Your task to perform on an android device: uninstall "Google Duo" Image 0: 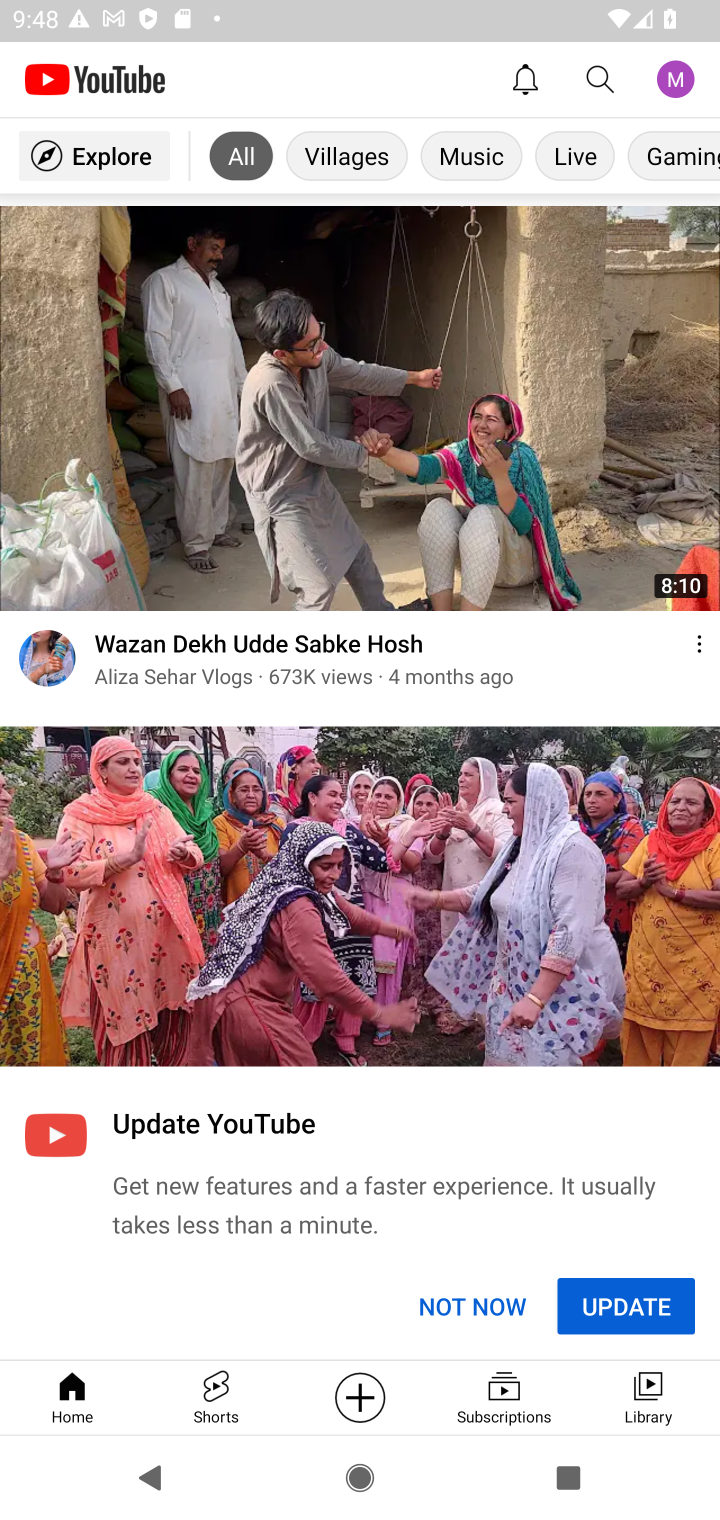
Step 0: press home button
Your task to perform on an android device: uninstall "Google Duo" Image 1: 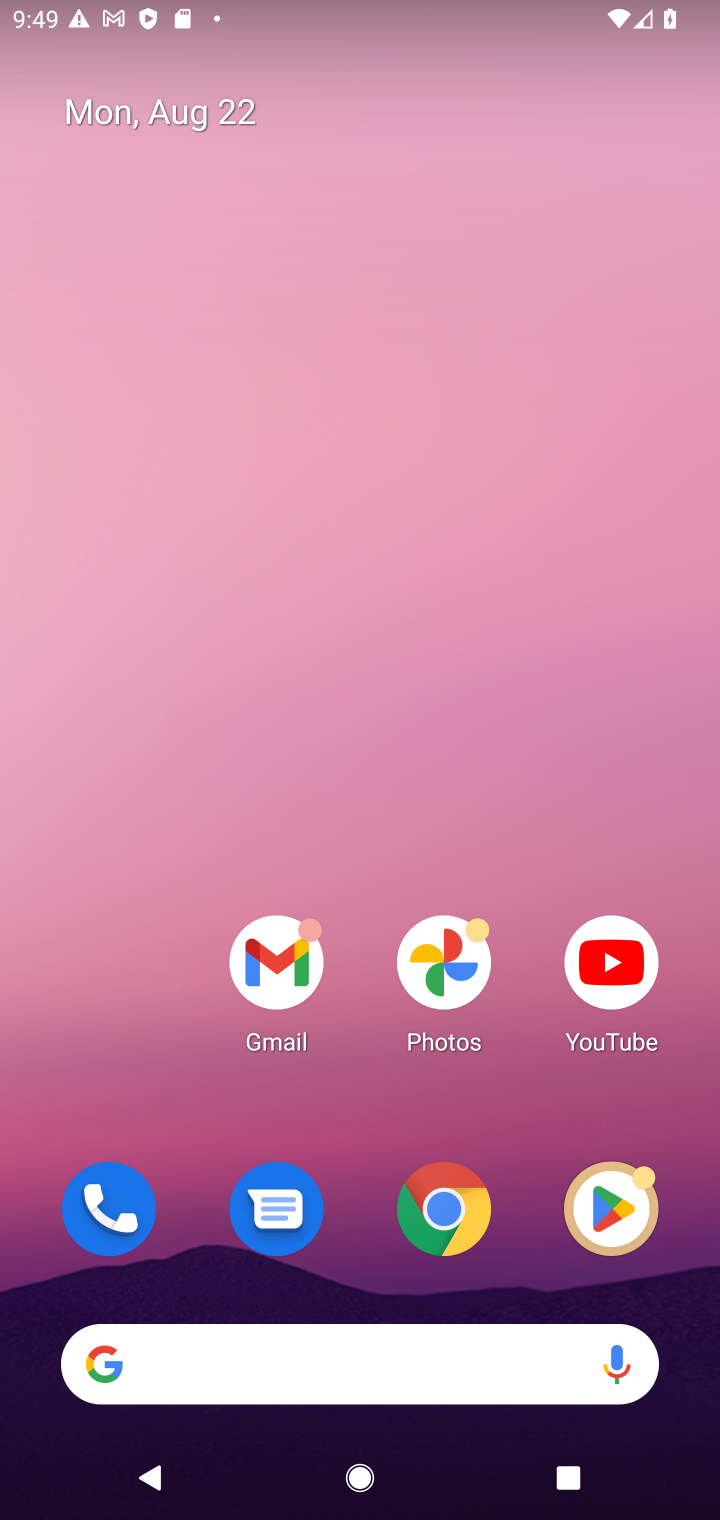
Step 1: click (384, 99)
Your task to perform on an android device: uninstall "Google Duo" Image 2: 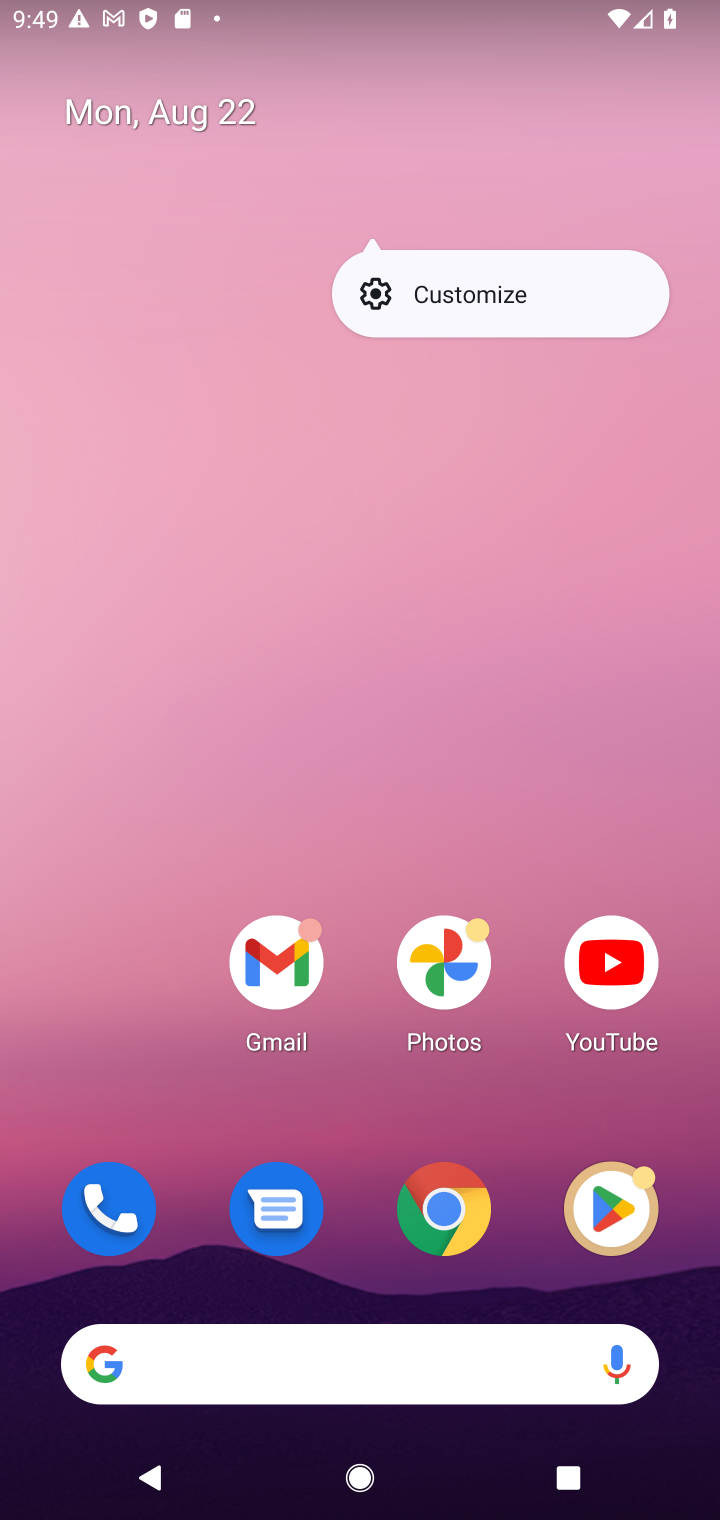
Step 2: drag from (359, 1334) to (539, 322)
Your task to perform on an android device: uninstall "Google Duo" Image 3: 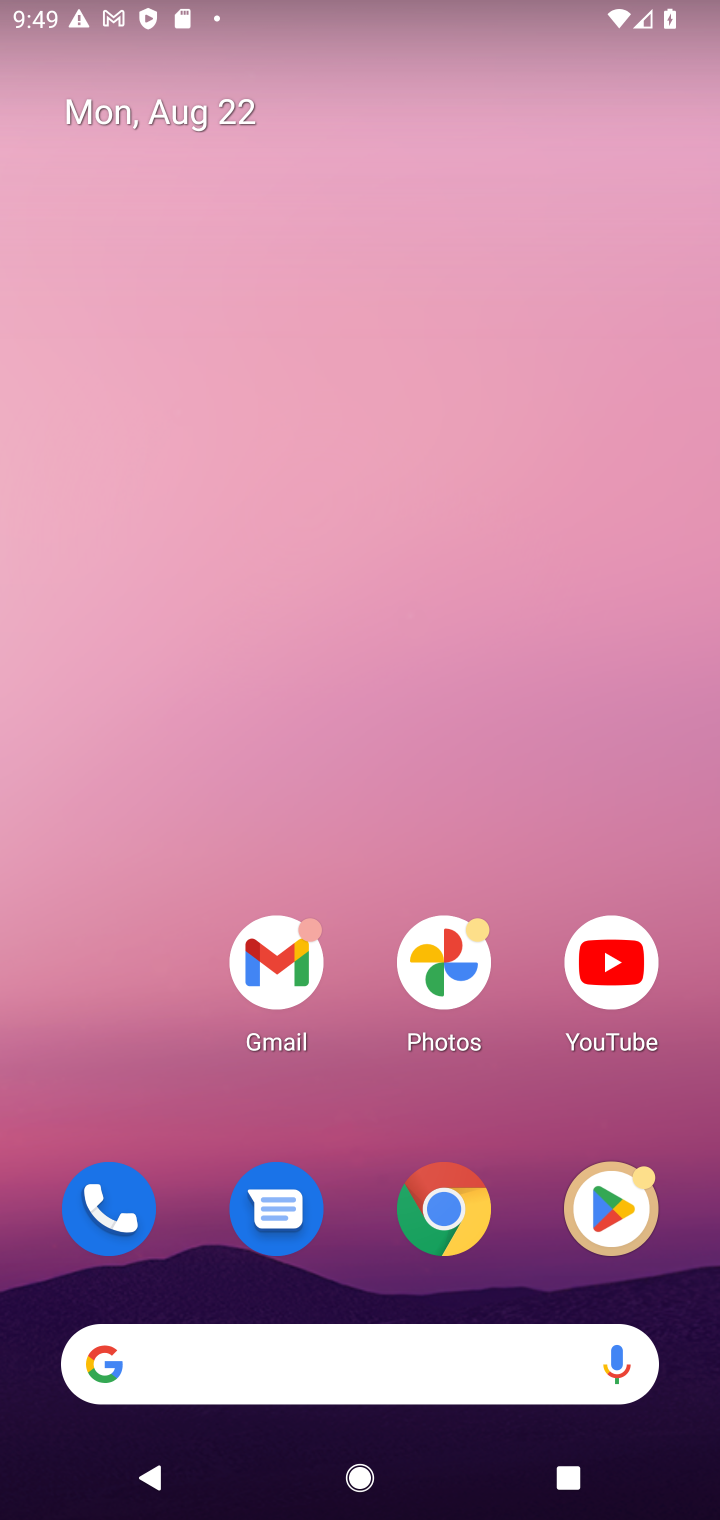
Step 3: drag from (288, 1325) to (286, 360)
Your task to perform on an android device: uninstall "Google Duo" Image 4: 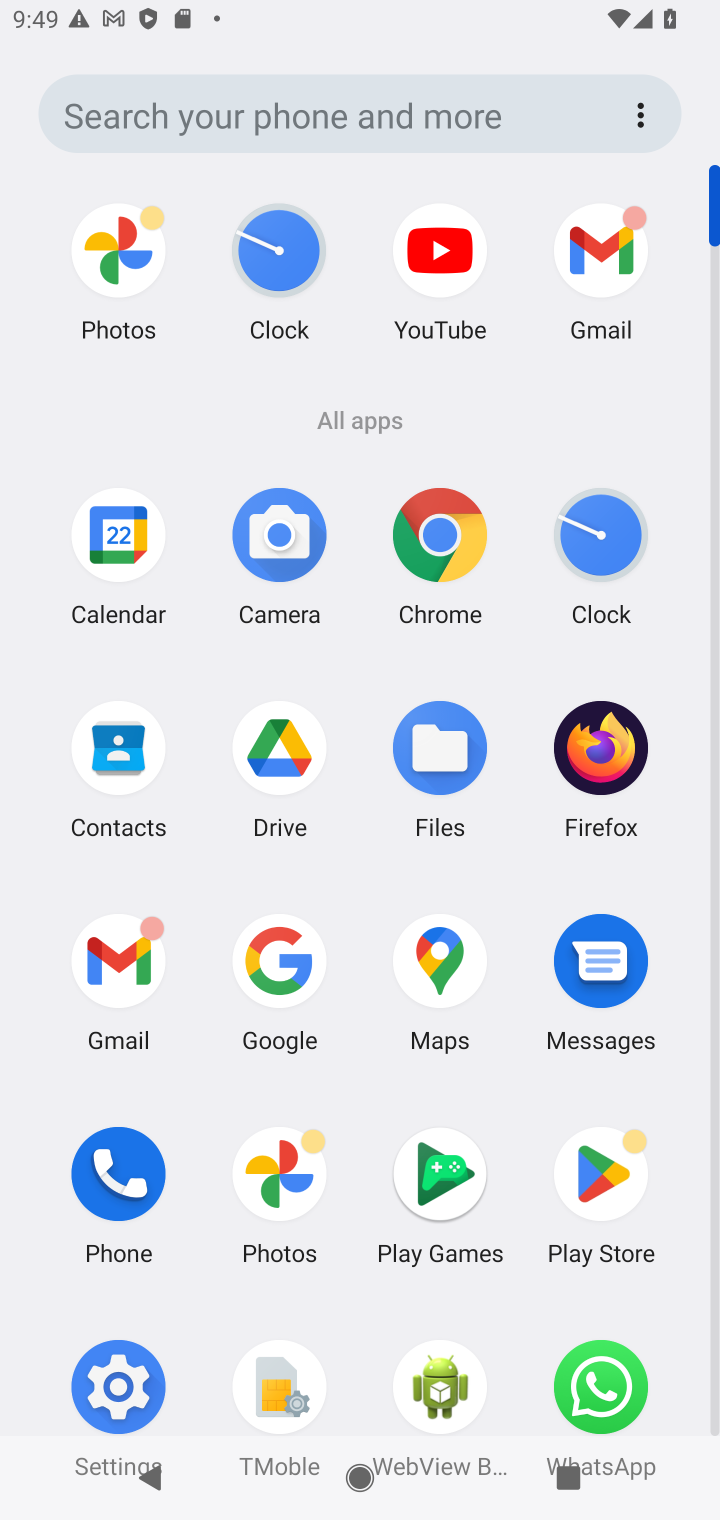
Step 4: click (577, 1188)
Your task to perform on an android device: uninstall "Google Duo" Image 5: 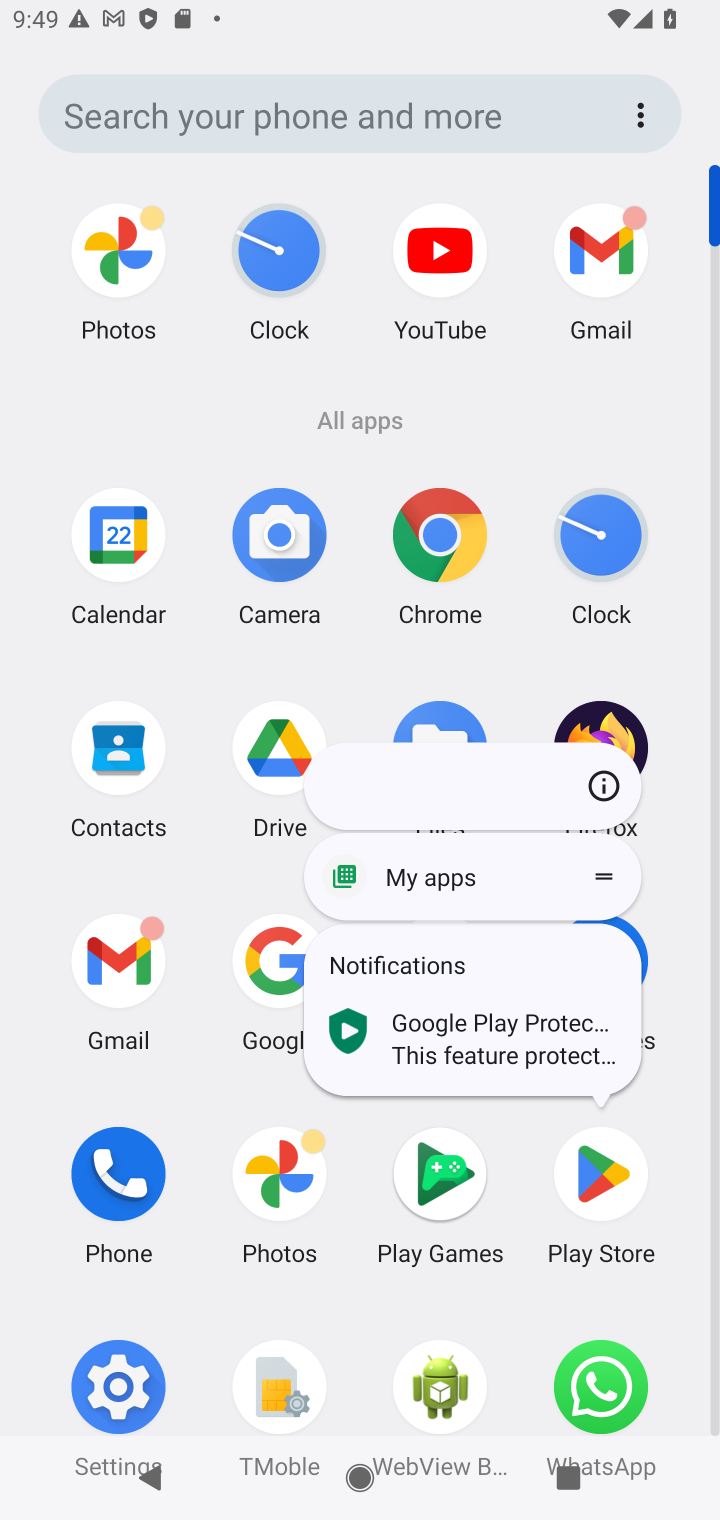
Step 5: click (577, 1190)
Your task to perform on an android device: uninstall "Google Duo" Image 6: 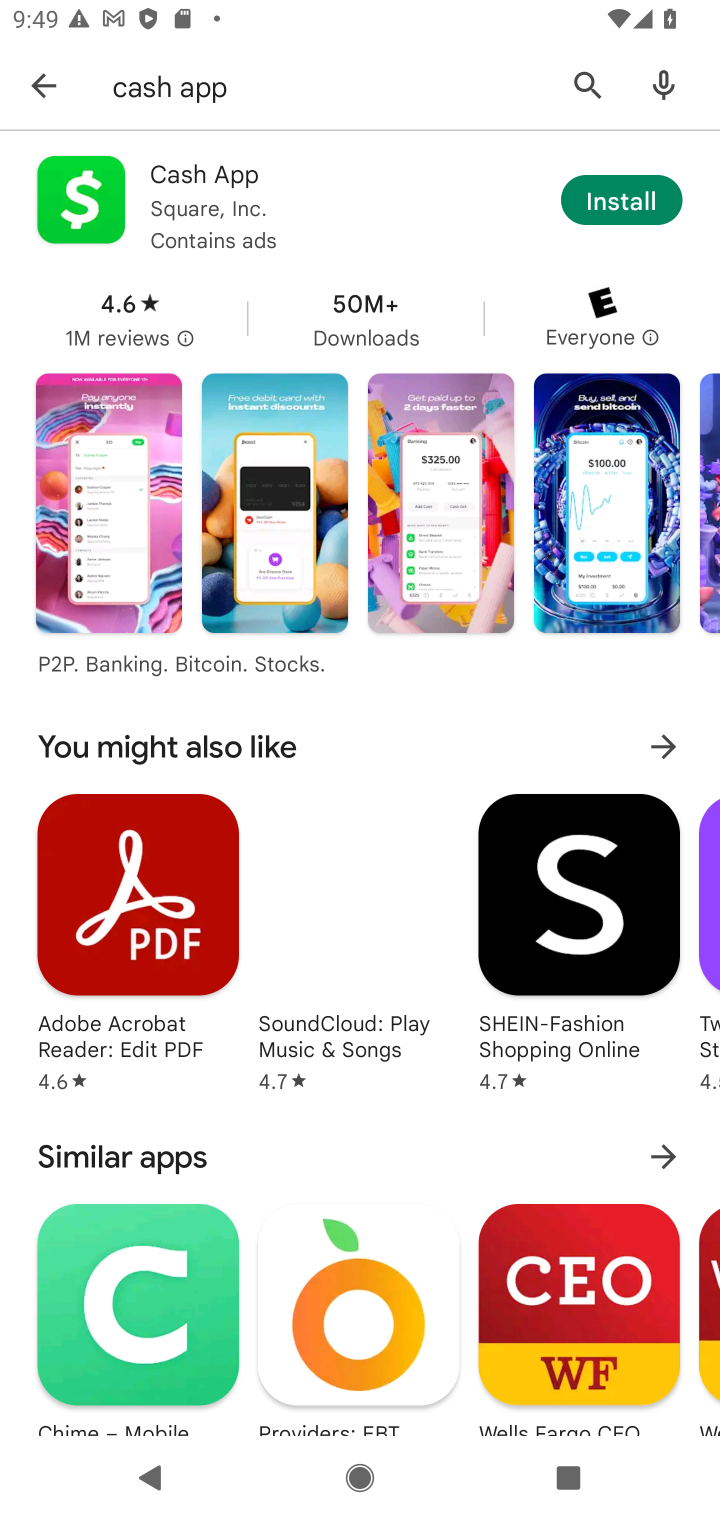
Step 6: drag from (623, 1182) to (707, 1182)
Your task to perform on an android device: uninstall "Google Duo" Image 7: 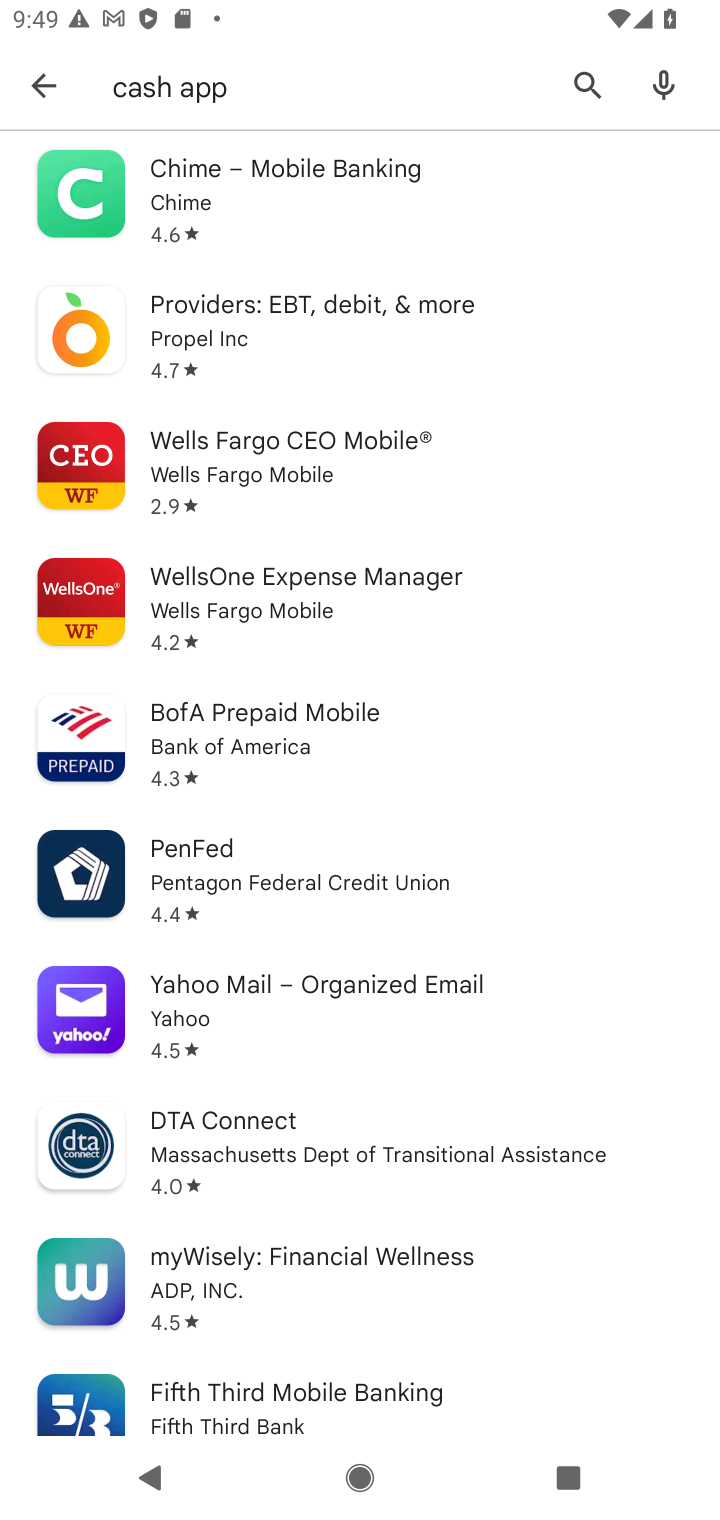
Step 7: click (587, 74)
Your task to perform on an android device: uninstall "Google Duo" Image 8: 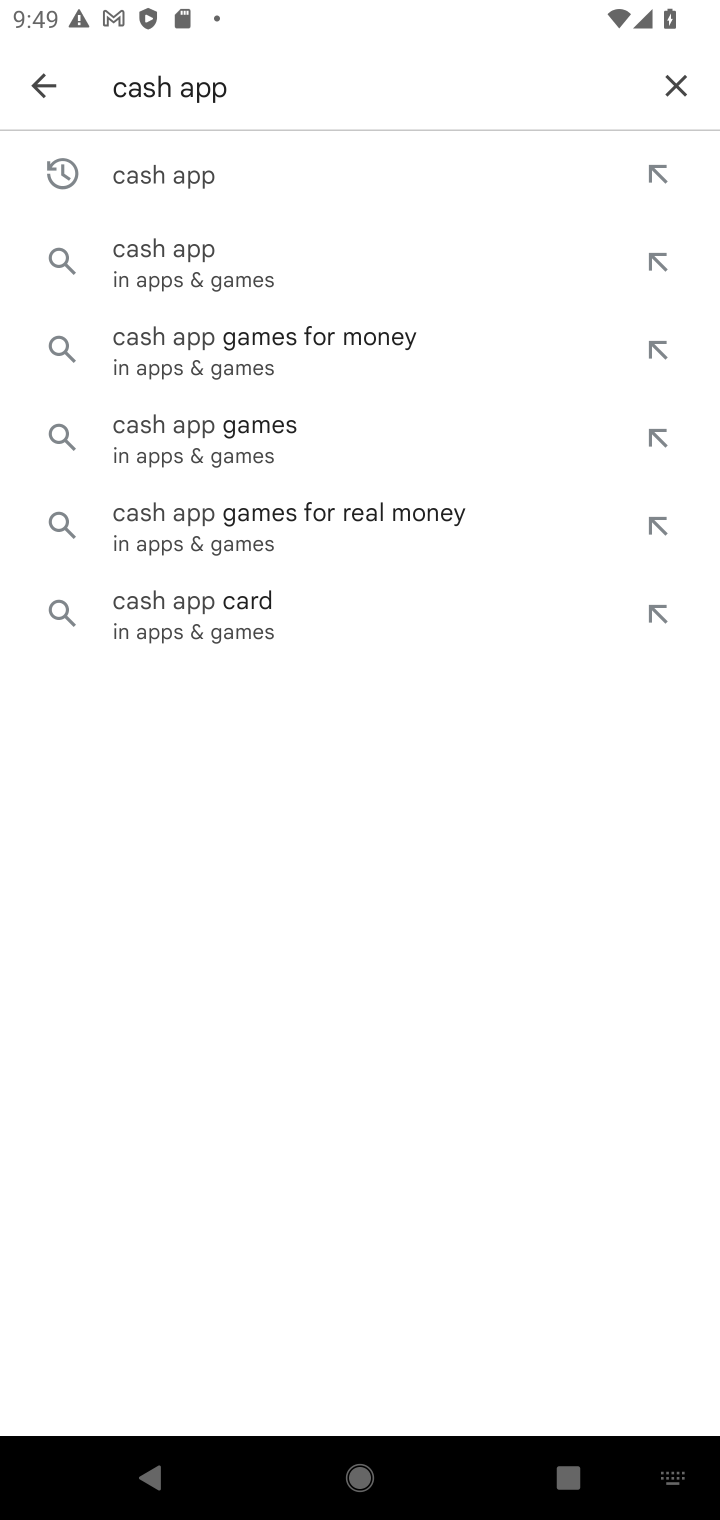
Step 8: click (679, 72)
Your task to perform on an android device: uninstall "Google Duo" Image 9: 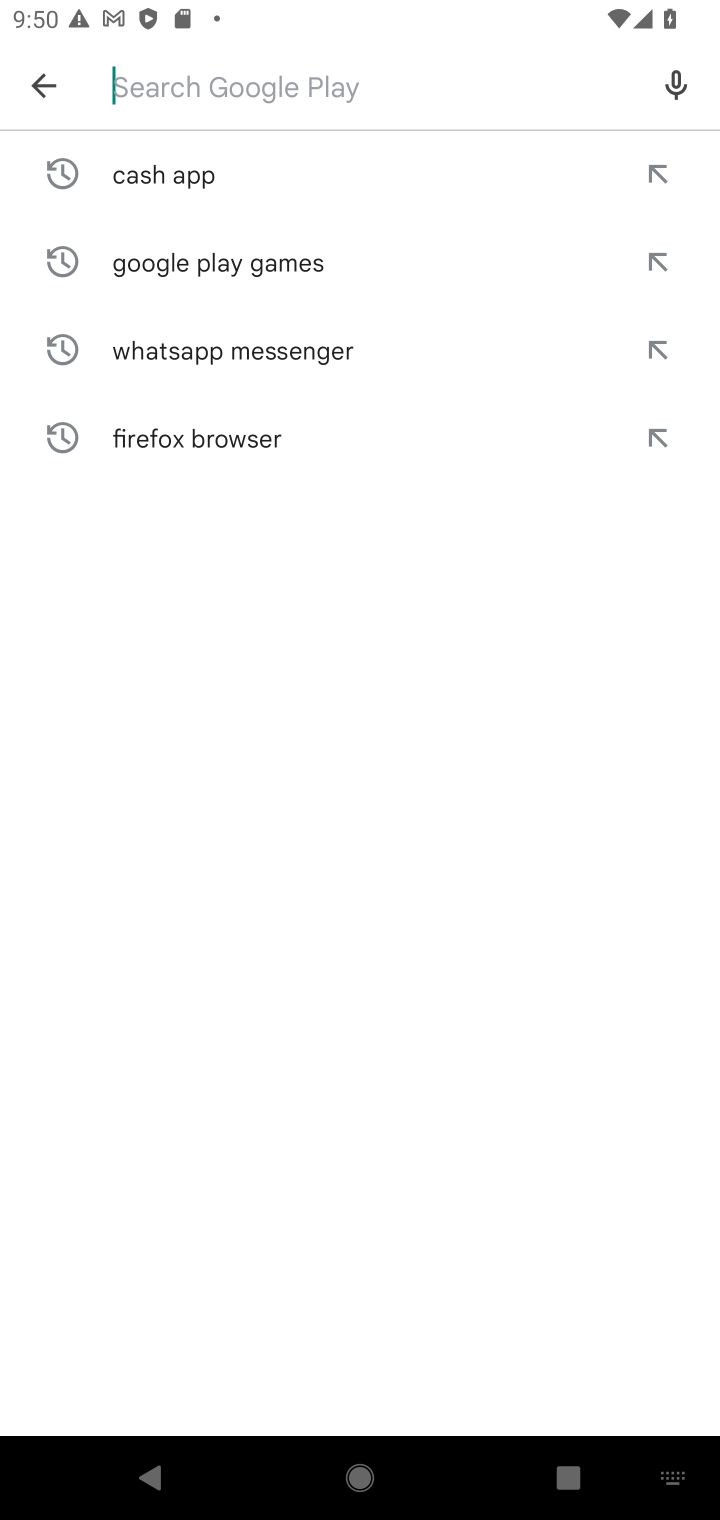
Step 9: type "Google Duo"
Your task to perform on an android device: uninstall "Google Duo" Image 10: 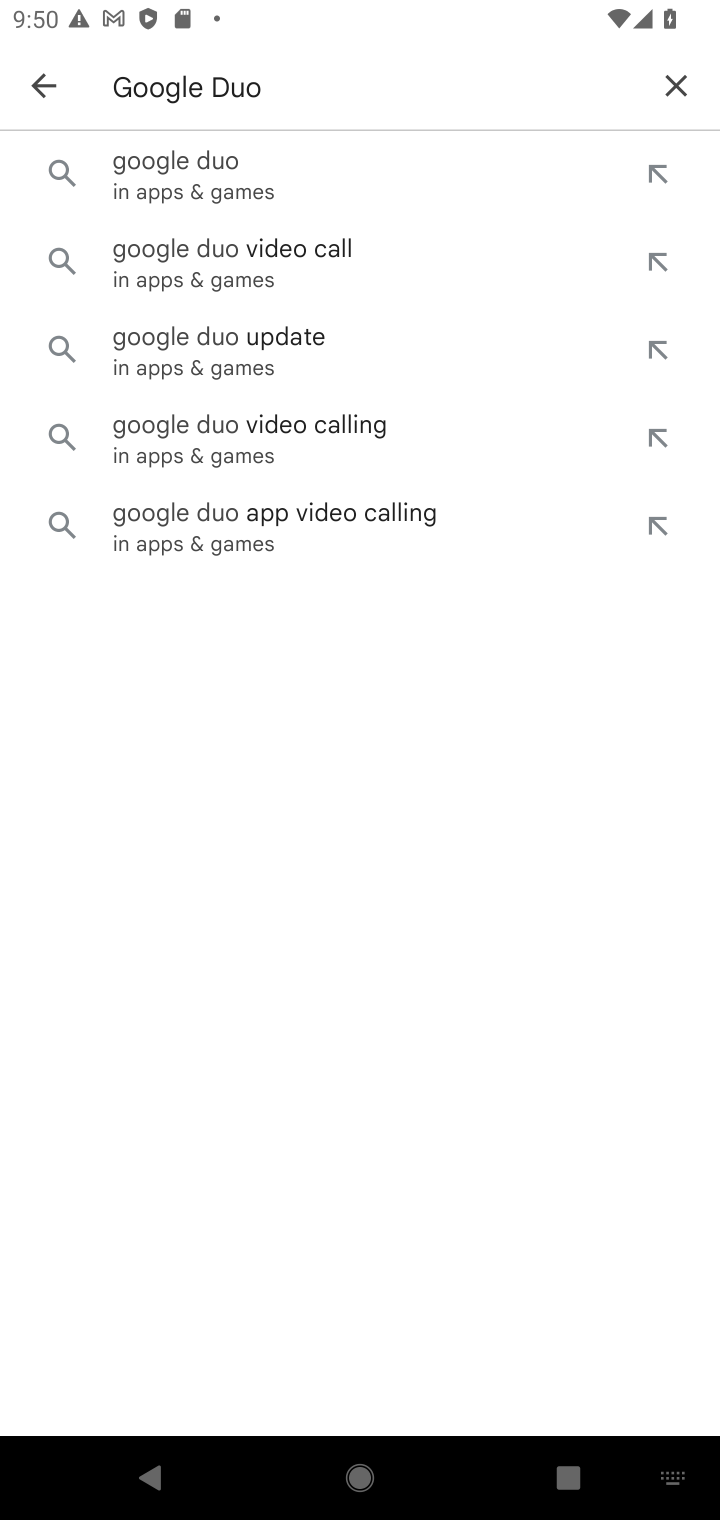
Step 10: click (209, 167)
Your task to perform on an android device: uninstall "Google Duo" Image 11: 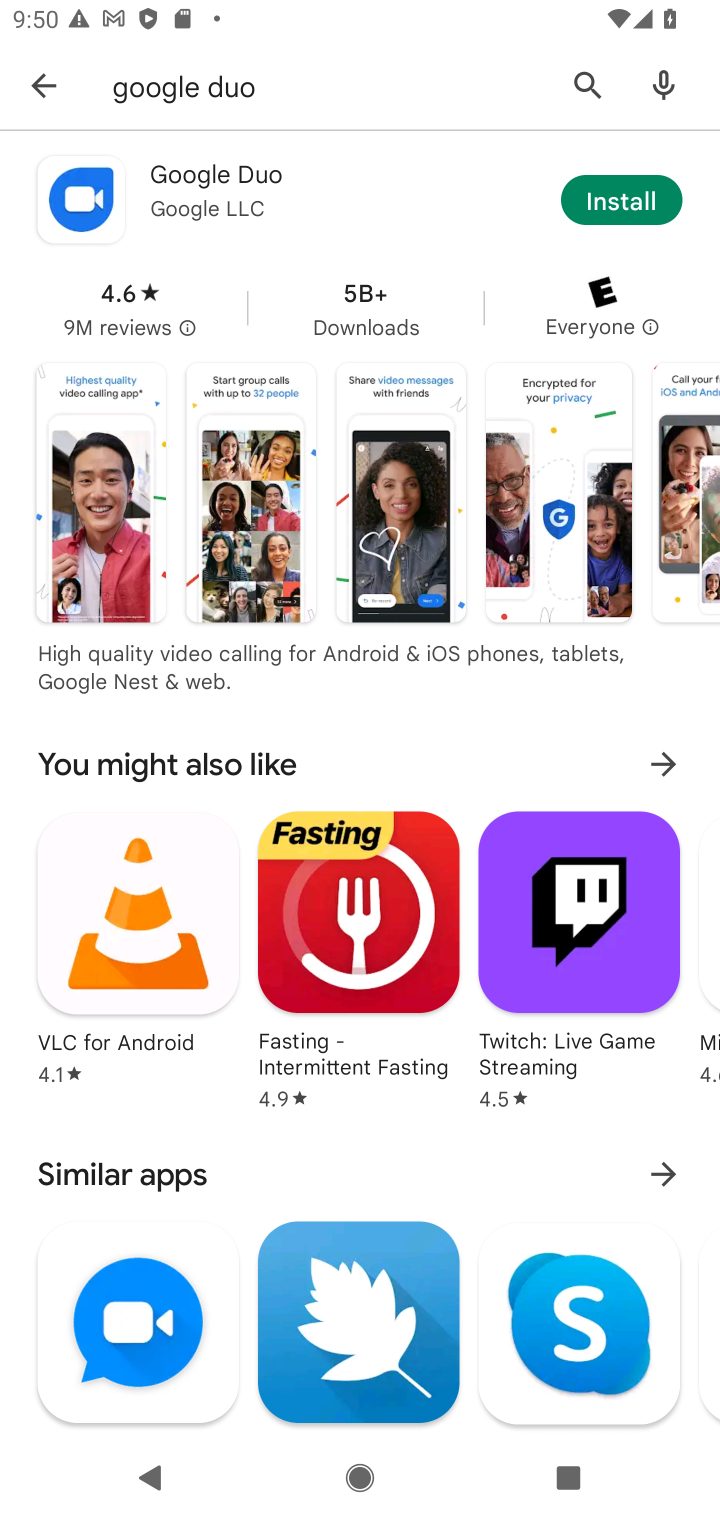
Step 11: task complete